Your task to perform on an android device: turn on sleep mode Image 0: 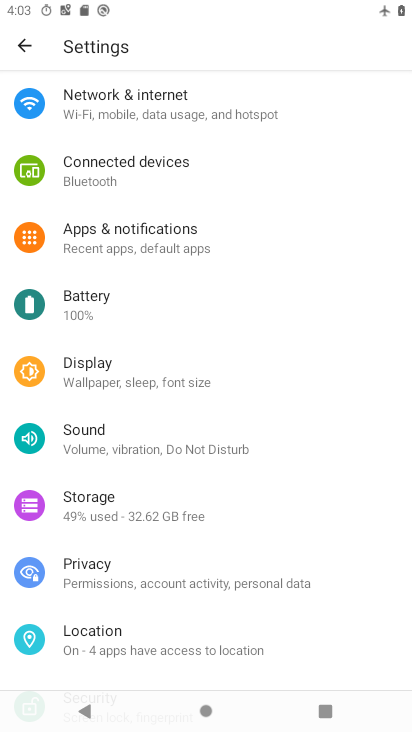
Step 0: press home button
Your task to perform on an android device: turn on sleep mode Image 1: 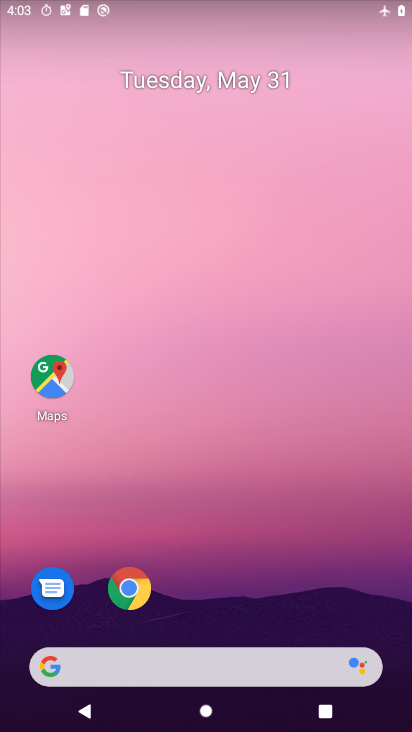
Step 1: drag from (209, 677) to (219, 60)
Your task to perform on an android device: turn on sleep mode Image 2: 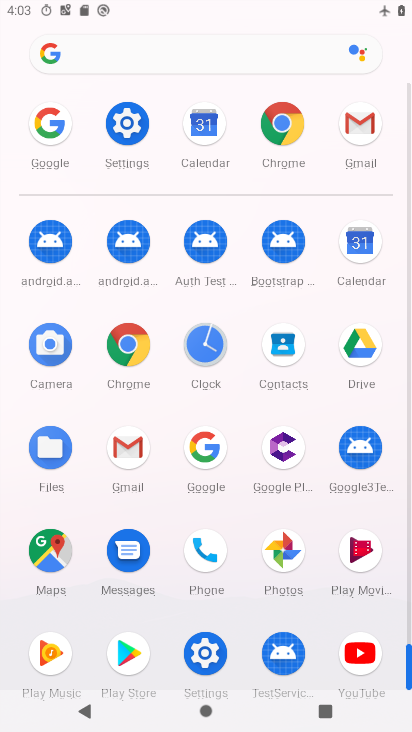
Step 2: click (138, 136)
Your task to perform on an android device: turn on sleep mode Image 3: 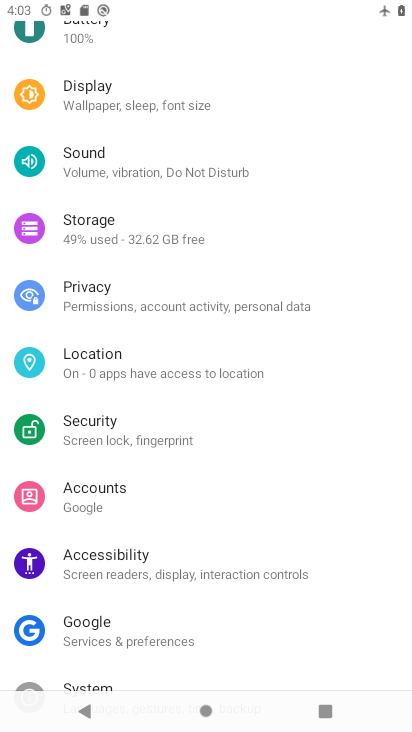
Step 3: drag from (177, 249) to (210, 459)
Your task to perform on an android device: turn on sleep mode Image 4: 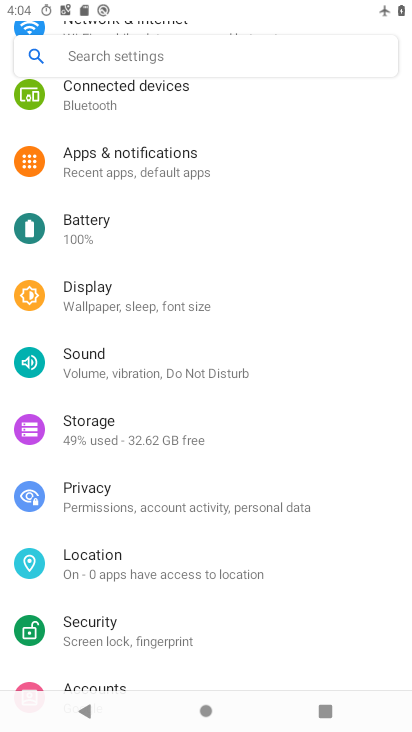
Step 4: click (118, 303)
Your task to perform on an android device: turn on sleep mode Image 5: 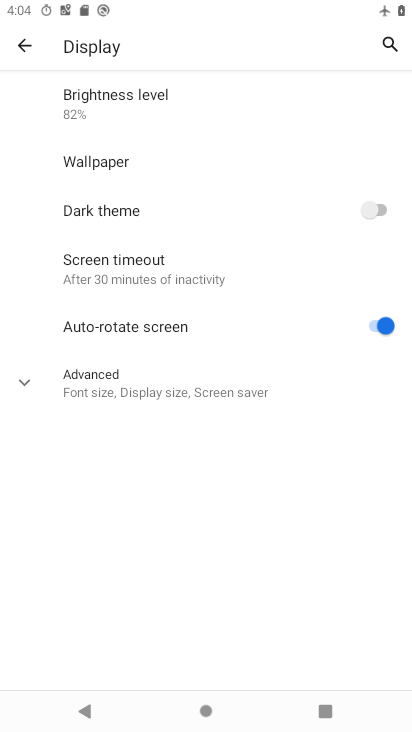
Step 5: click (223, 375)
Your task to perform on an android device: turn on sleep mode Image 6: 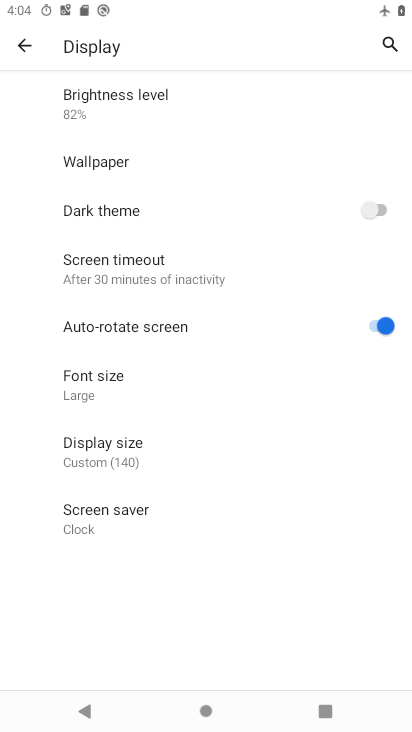
Step 6: task complete